Your task to perform on an android device: clear history in the chrome app Image 0: 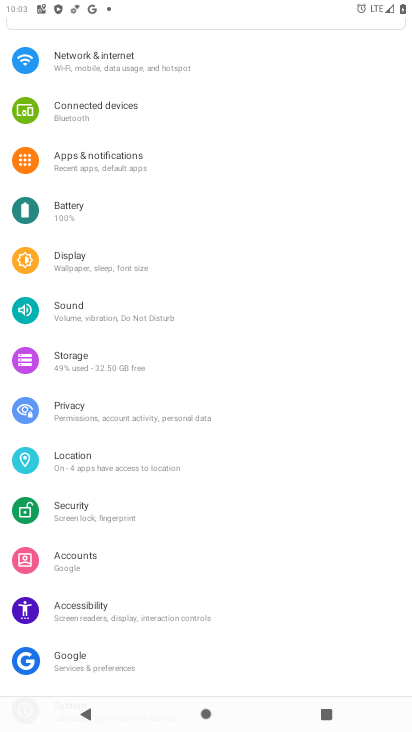
Step 0: press home button
Your task to perform on an android device: clear history in the chrome app Image 1: 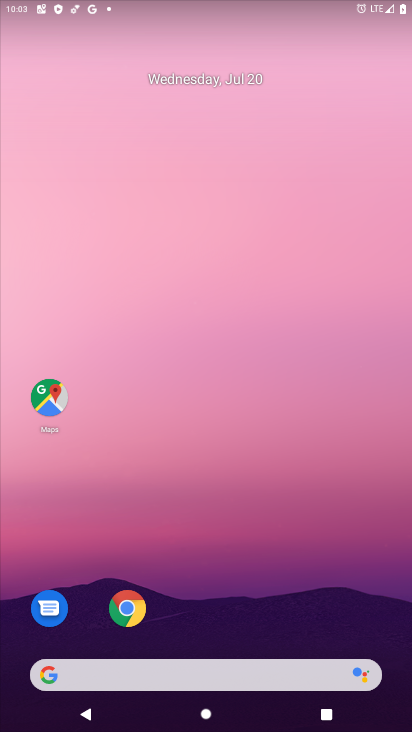
Step 1: click (129, 599)
Your task to perform on an android device: clear history in the chrome app Image 2: 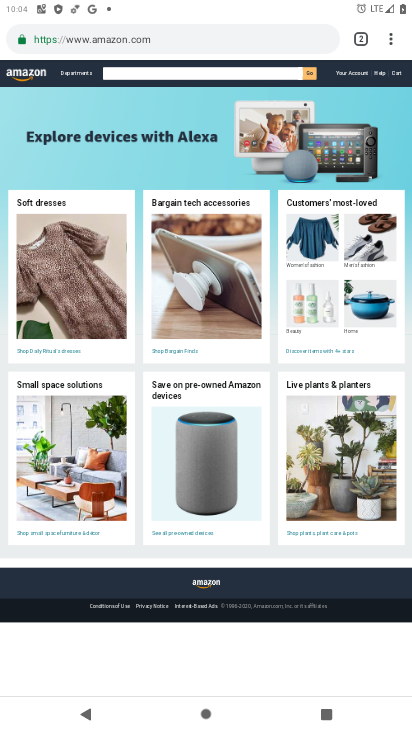
Step 2: click (387, 39)
Your task to perform on an android device: clear history in the chrome app Image 3: 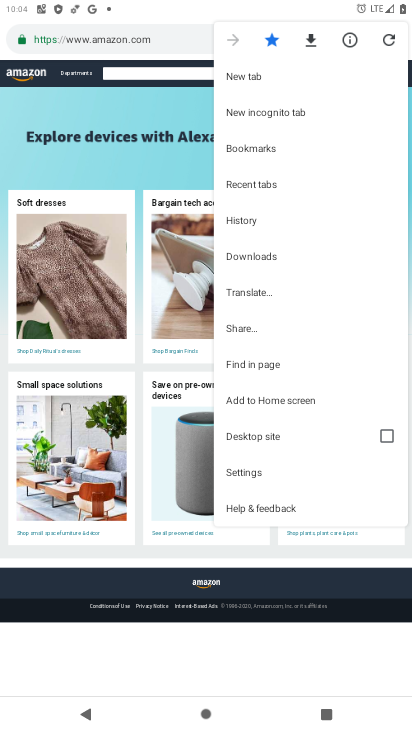
Step 3: click (256, 213)
Your task to perform on an android device: clear history in the chrome app Image 4: 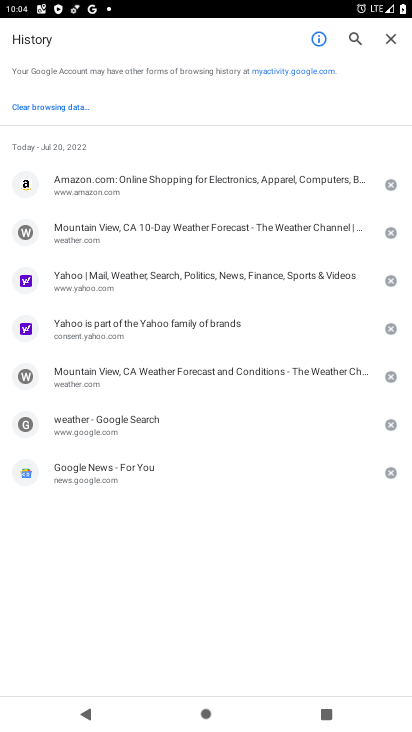
Step 4: click (56, 101)
Your task to perform on an android device: clear history in the chrome app Image 5: 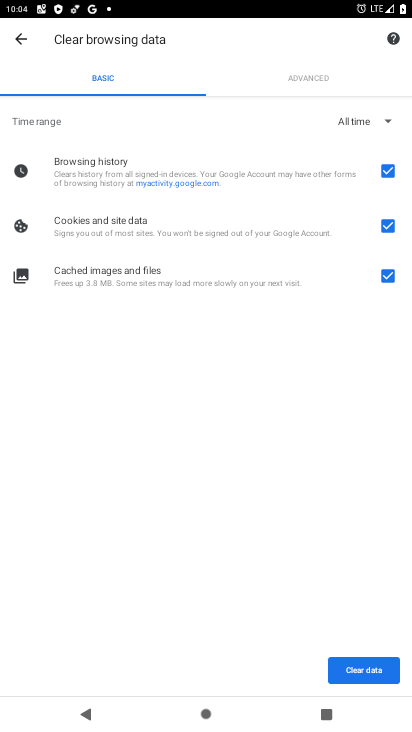
Step 5: click (369, 669)
Your task to perform on an android device: clear history in the chrome app Image 6: 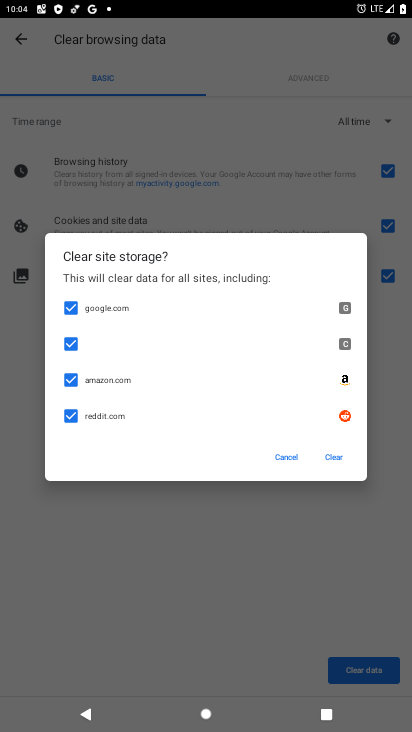
Step 6: click (335, 453)
Your task to perform on an android device: clear history in the chrome app Image 7: 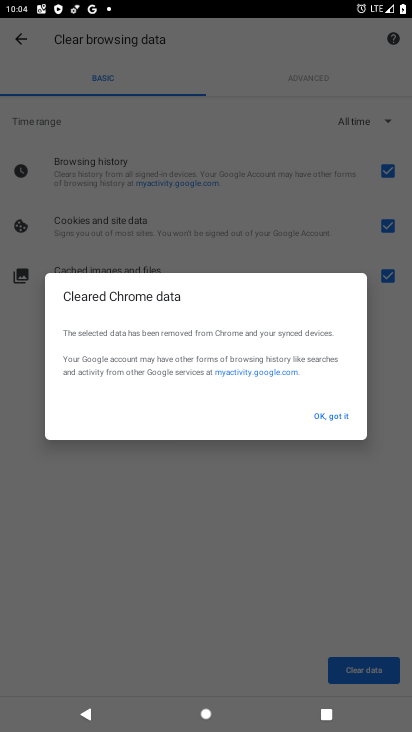
Step 7: click (327, 417)
Your task to perform on an android device: clear history in the chrome app Image 8: 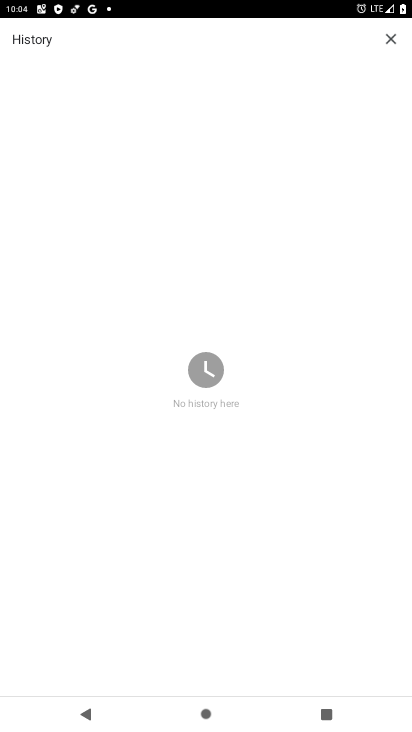
Step 8: task complete